Your task to perform on an android device: visit the assistant section in the google photos Image 0: 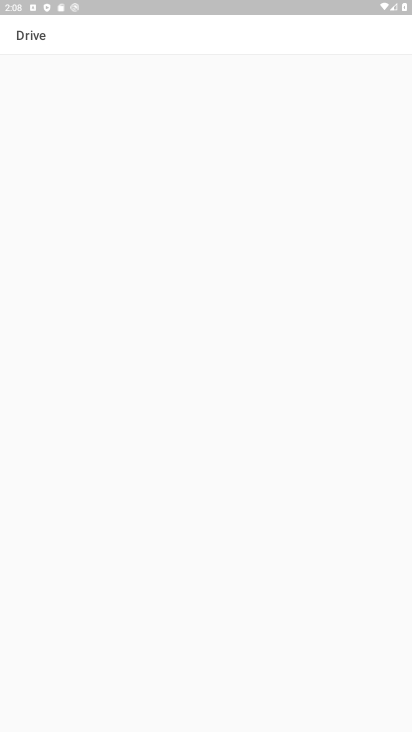
Step 0: press home button
Your task to perform on an android device: visit the assistant section in the google photos Image 1: 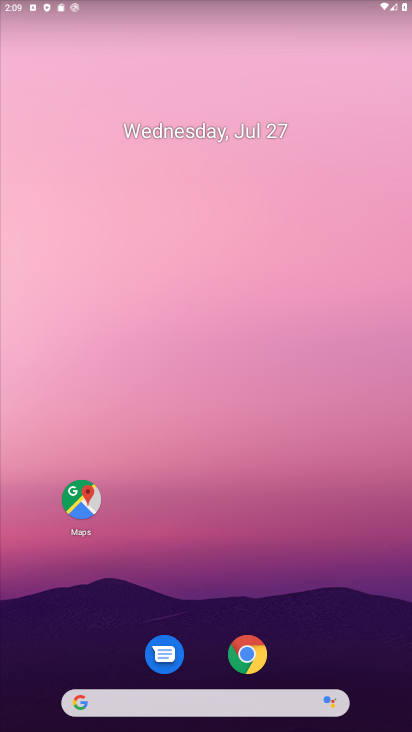
Step 1: drag from (14, 562) to (163, 90)
Your task to perform on an android device: visit the assistant section in the google photos Image 2: 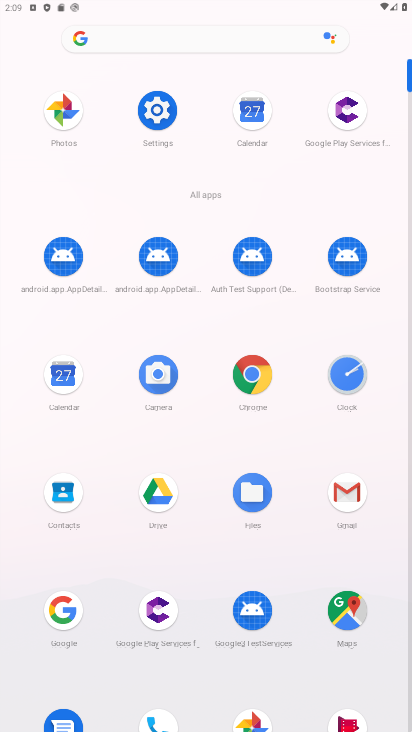
Step 2: click (246, 725)
Your task to perform on an android device: visit the assistant section in the google photos Image 3: 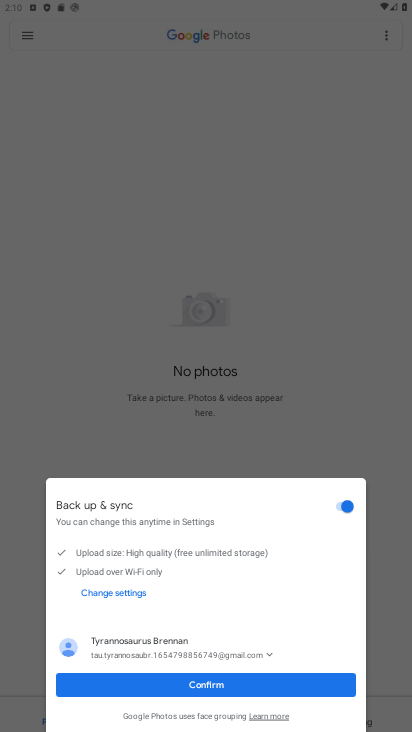
Step 3: click (232, 690)
Your task to perform on an android device: visit the assistant section in the google photos Image 4: 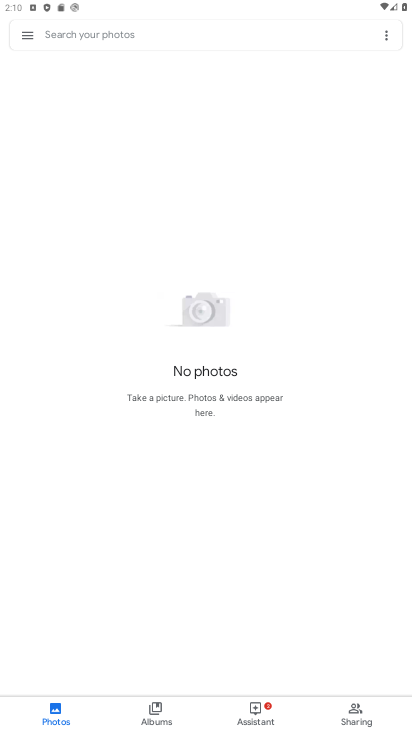
Step 4: click (259, 705)
Your task to perform on an android device: visit the assistant section in the google photos Image 5: 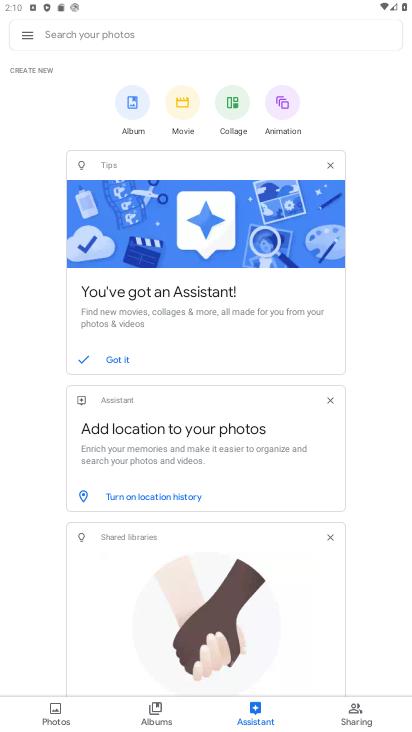
Step 5: task complete